Your task to perform on an android device: Play the new Taylor Swift video on YouTube Image 0: 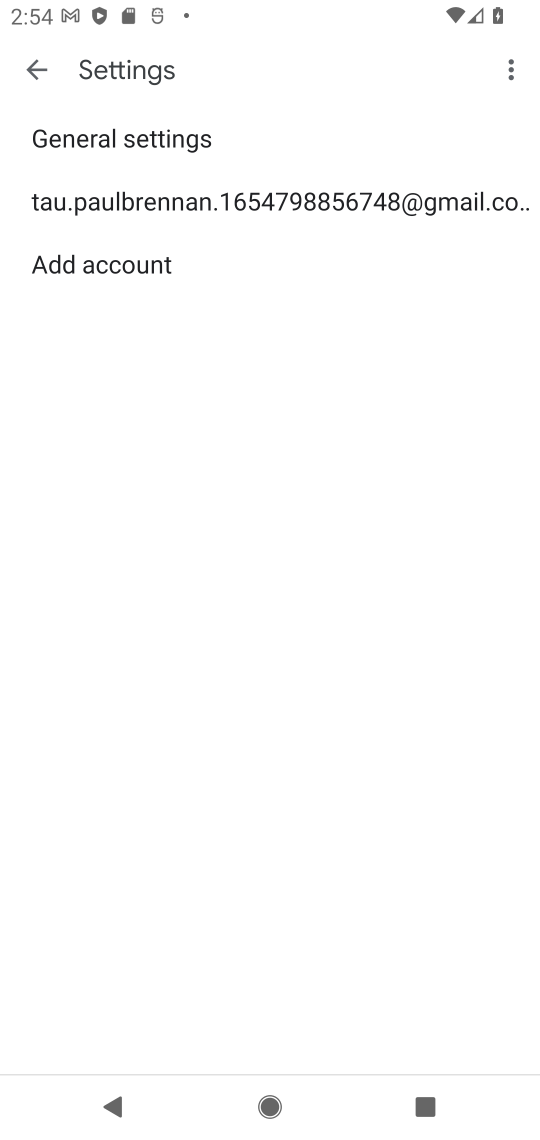
Step 0: press home button
Your task to perform on an android device: Play the new Taylor Swift video on YouTube Image 1: 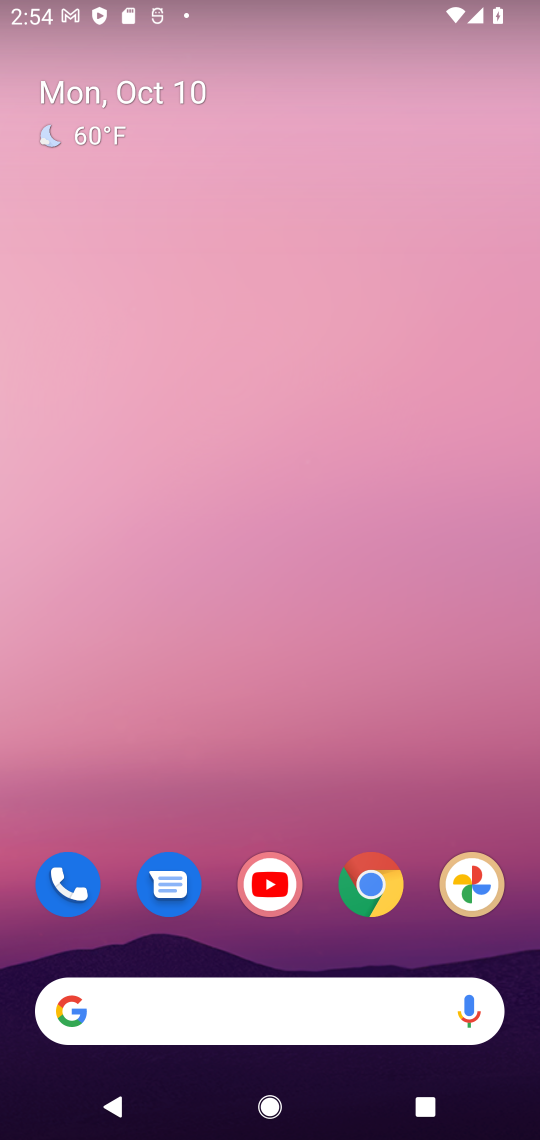
Step 1: drag from (329, 949) to (435, 910)
Your task to perform on an android device: Play the new Taylor Swift video on YouTube Image 2: 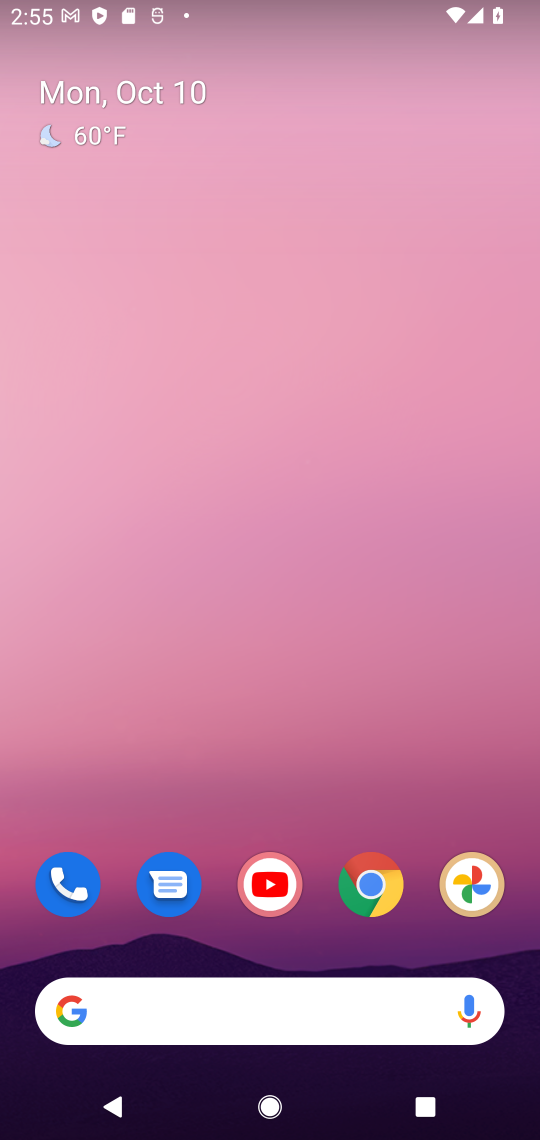
Step 2: click (274, 900)
Your task to perform on an android device: Play the new Taylor Swift video on YouTube Image 3: 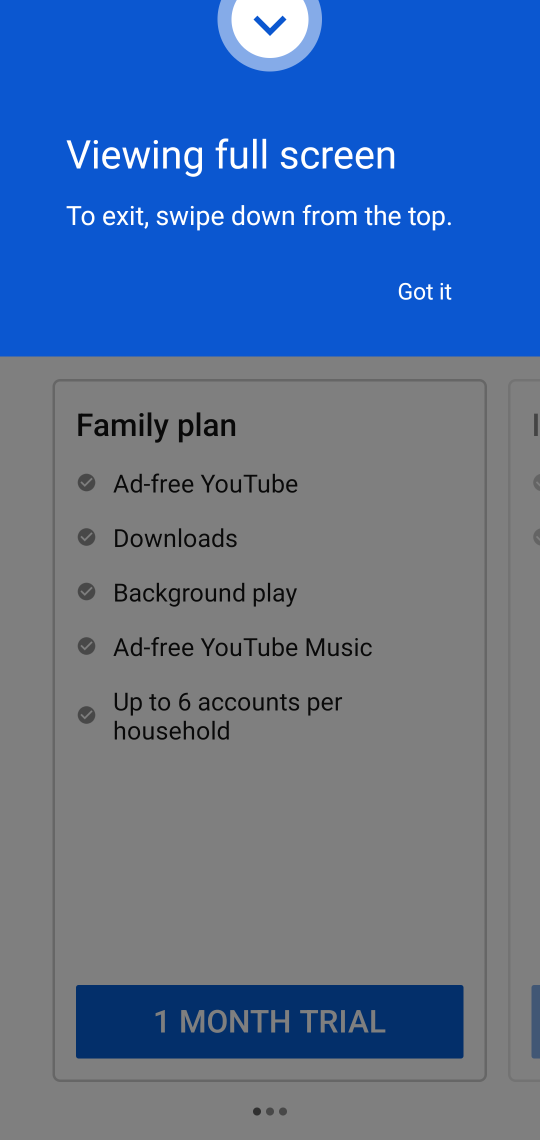
Step 3: click (411, 282)
Your task to perform on an android device: Play the new Taylor Swift video on YouTube Image 4: 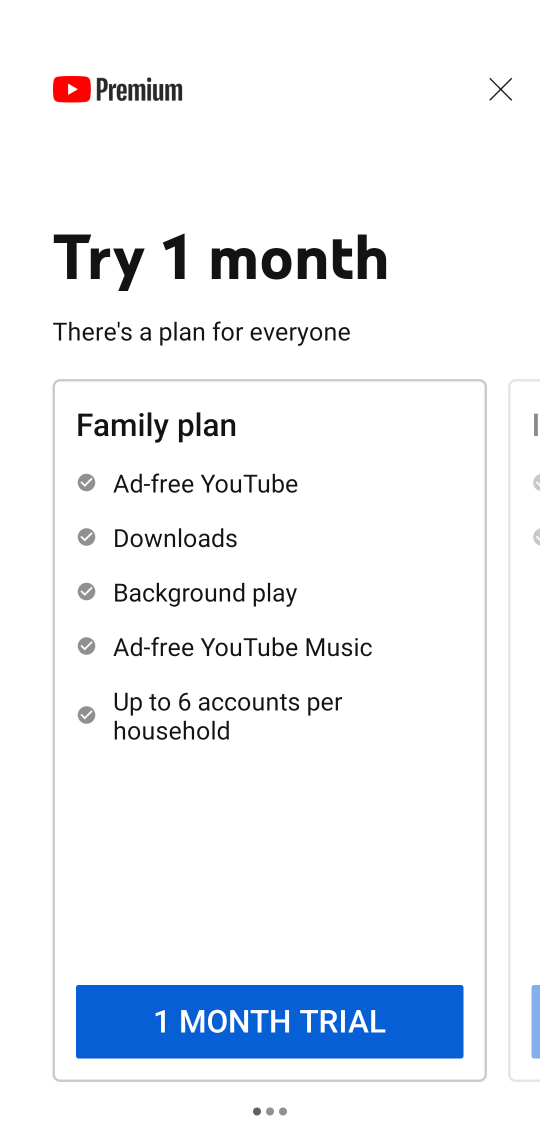
Step 4: drag from (430, 868) to (3, 789)
Your task to perform on an android device: Play the new Taylor Swift video on YouTube Image 5: 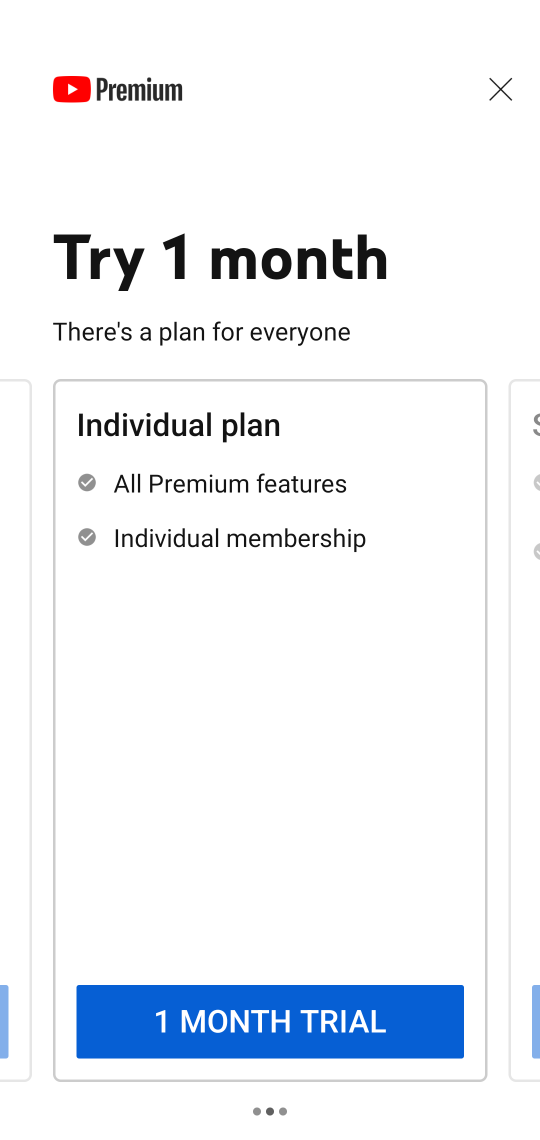
Step 5: drag from (355, 805) to (0, 698)
Your task to perform on an android device: Play the new Taylor Swift video on YouTube Image 6: 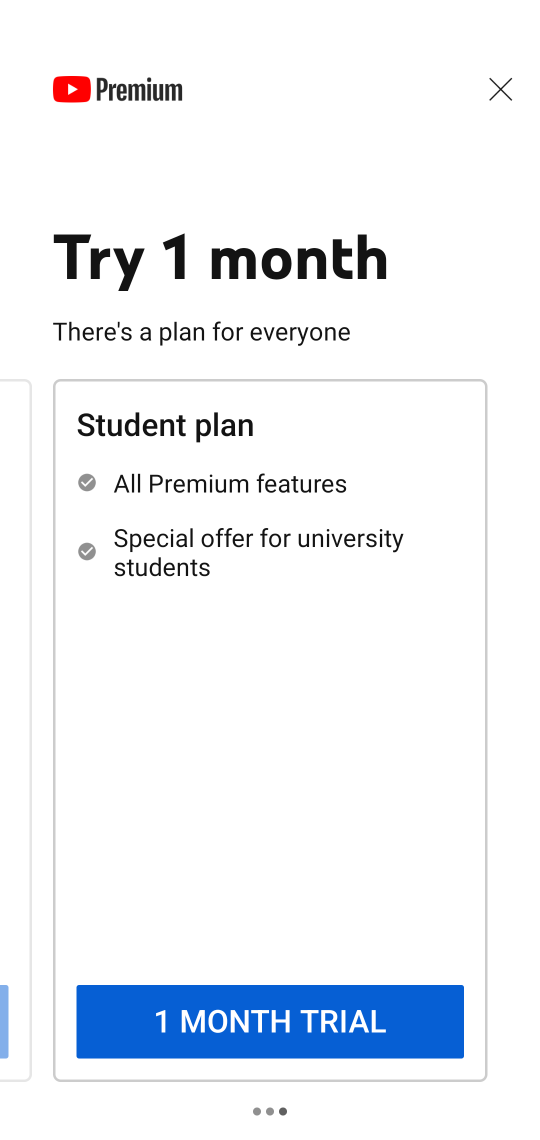
Step 6: click (511, 95)
Your task to perform on an android device: Play the new Taylor Swift video on YouTube Image 7: 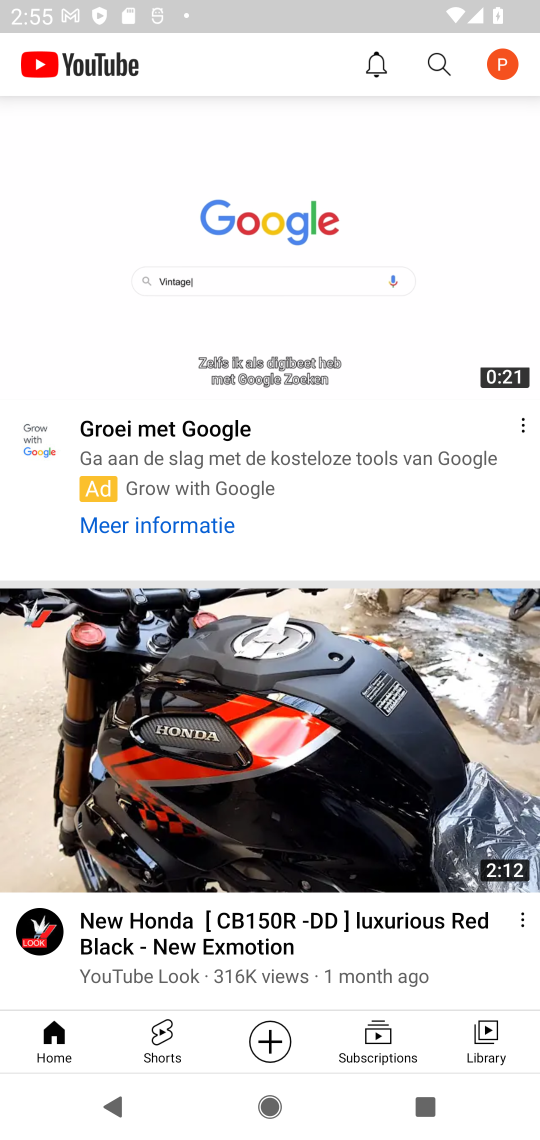
Step 7: click (430, 66)
Your task to perform on an android device: Play the new Taylor Swift video on YouTube Image 8: 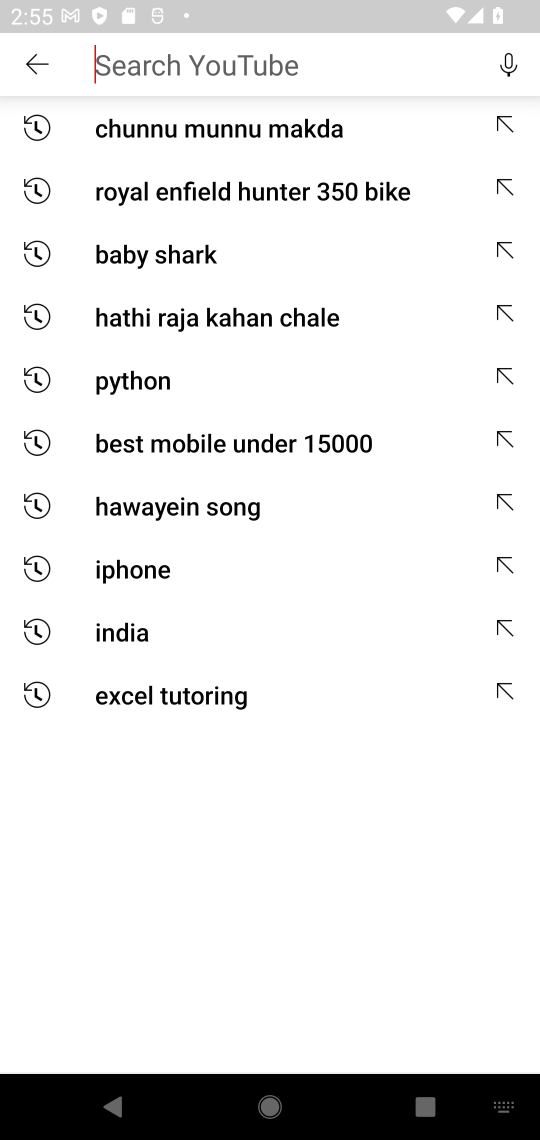
Step 8: type "new Taylor Swift video"
Your task to perform on an android device: Play the new Taylor Swift video on YouTube Image 9: 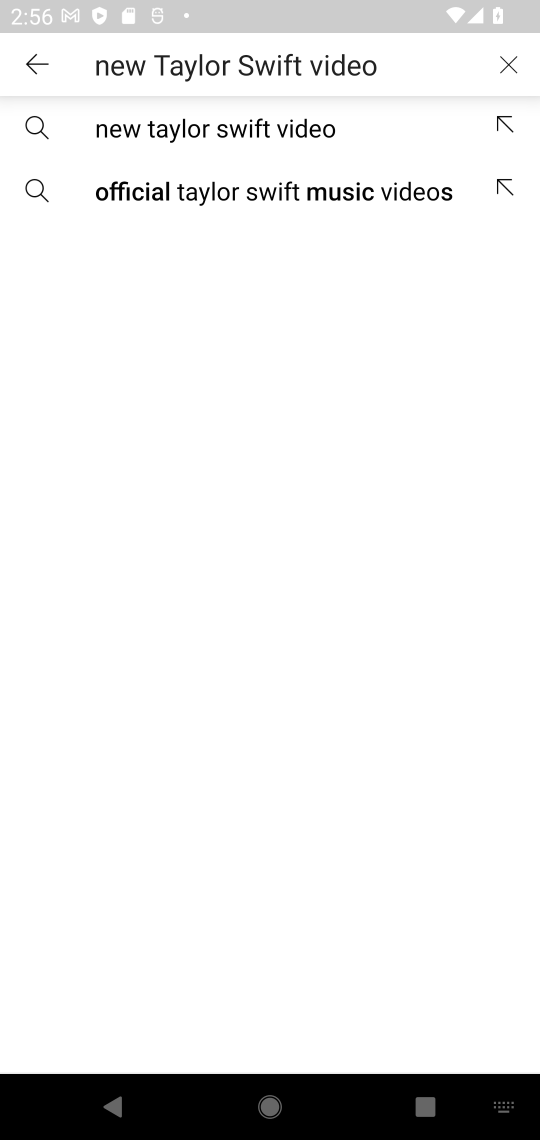
Step 9: click (222, 139)
Your task to perform on an android device: Play the new Taylor Swift video on YouTube Image 10: 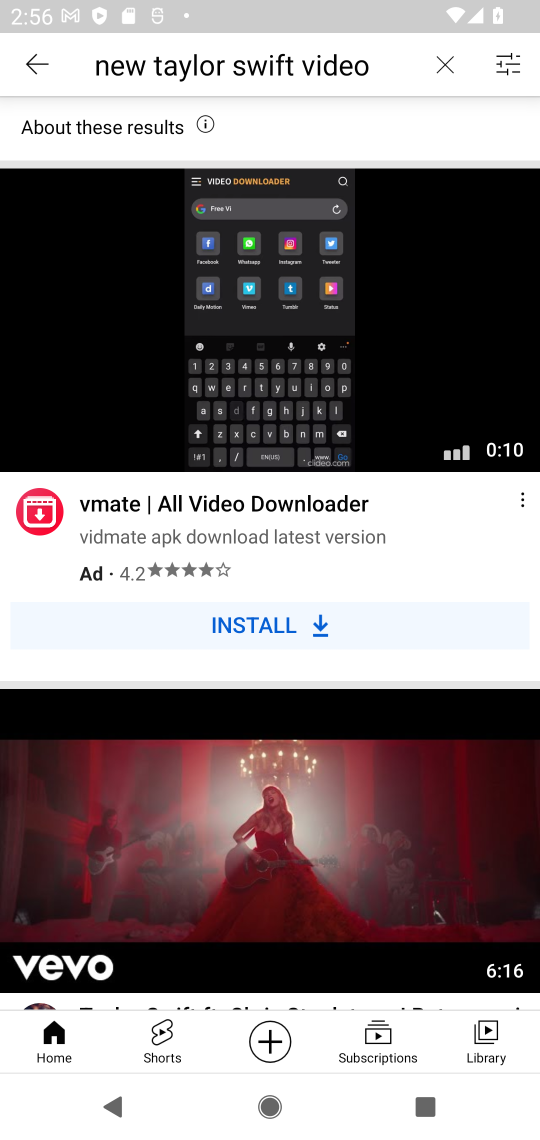
Step 10: drag from (312, 767) to (274, 357)
Your task to perform on an android device: Play the new Taylor Swift video on YouTube Image 11: 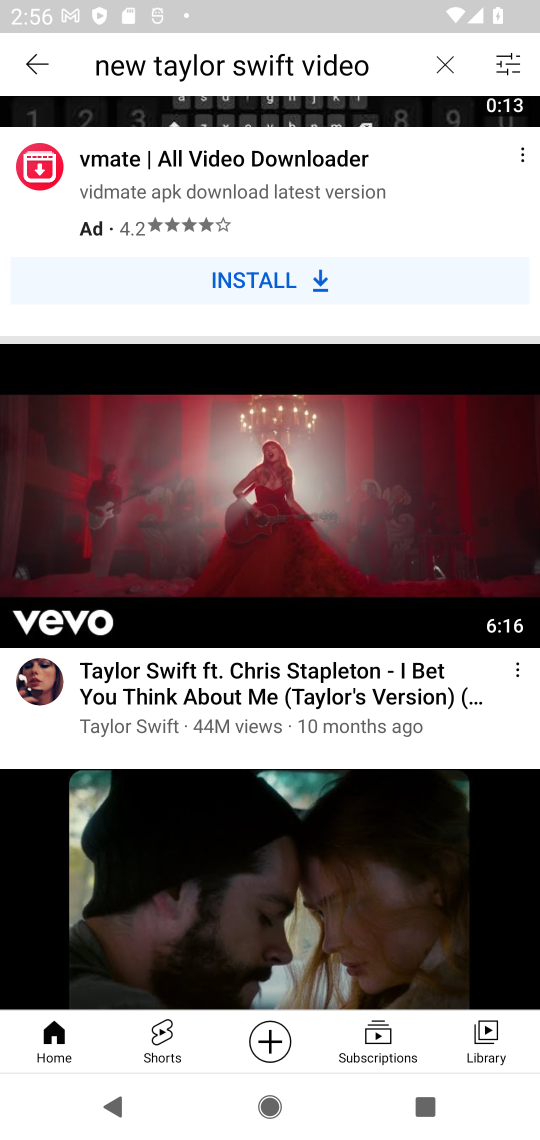
Step 11: click (223, 471)
Your task to perform on an android device: Play the new Taylor Swift video on YouTube Image 12: 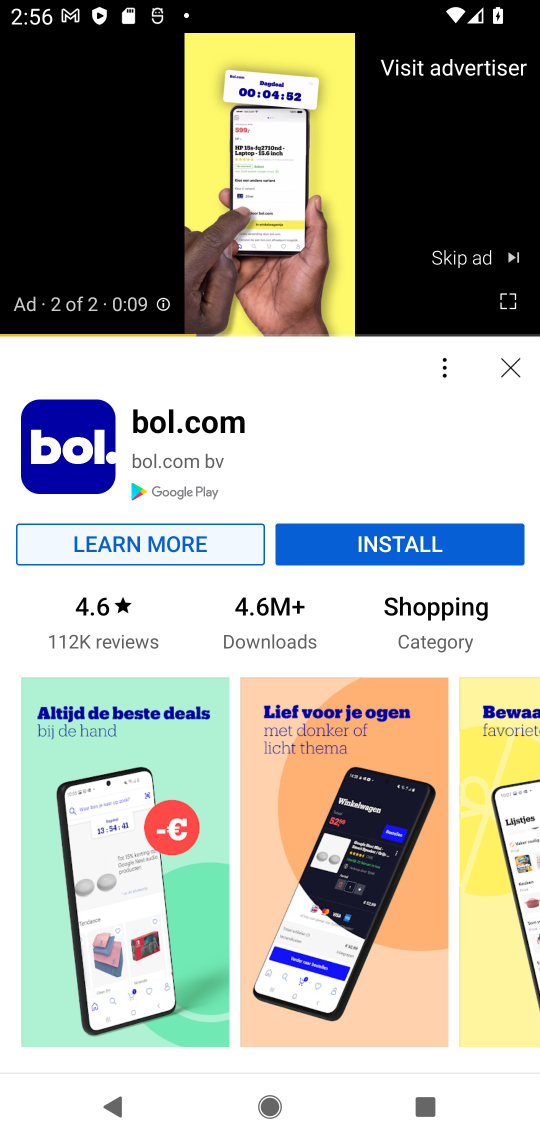
Step 12: click (477, 265)
Your task to perform on an android device: Play the new Taylor Swift video on YouTube Image 13: 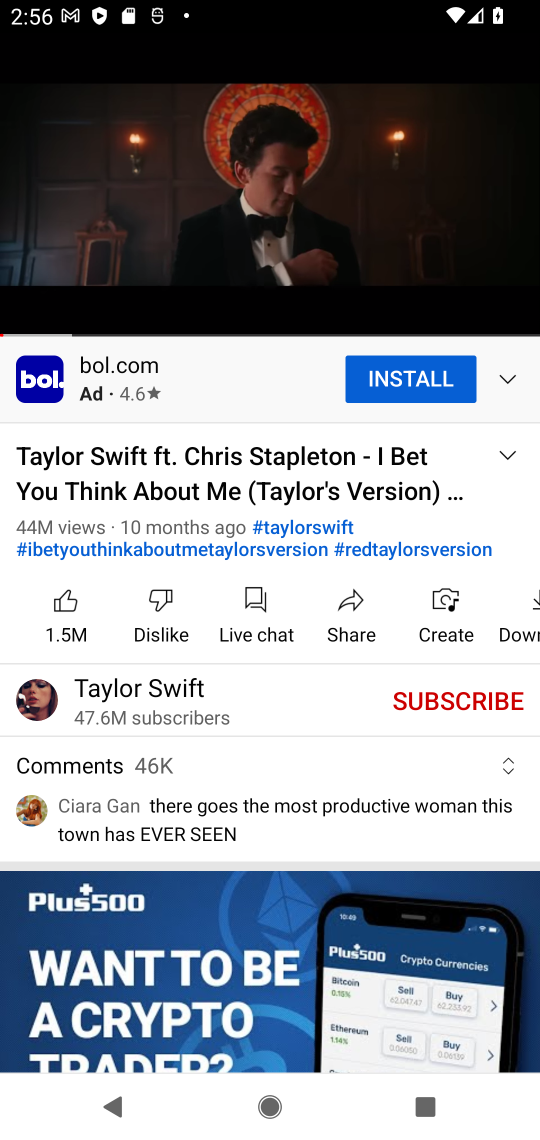
Step 13: click (230, 218)
Your task to perform on an android device: Play the new Taylor Swift video on YouTube Image 14: 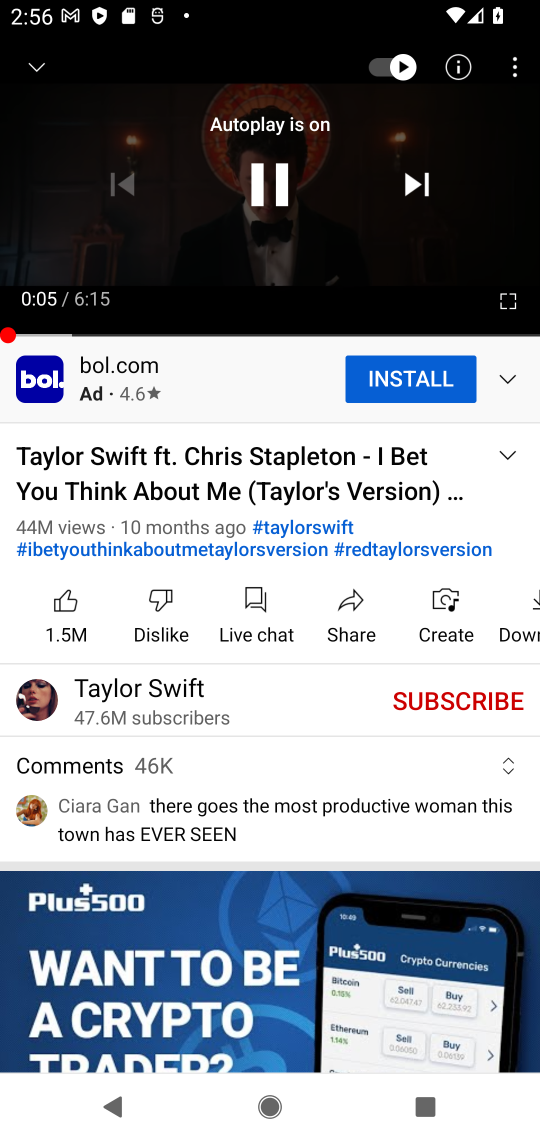
Step 14: click (270, 199)
Your task to perform on an android device: Play the new Taylor Swift video on YouTube Image 15: 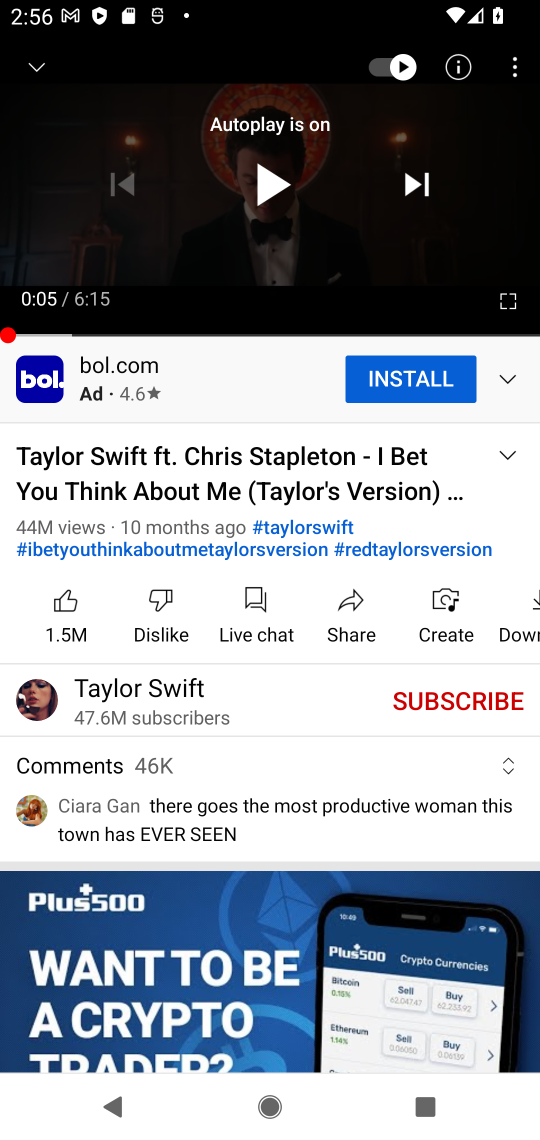
Step 15: task complete